Your task to perform on an android device: clear history in the chrome app Image 0: 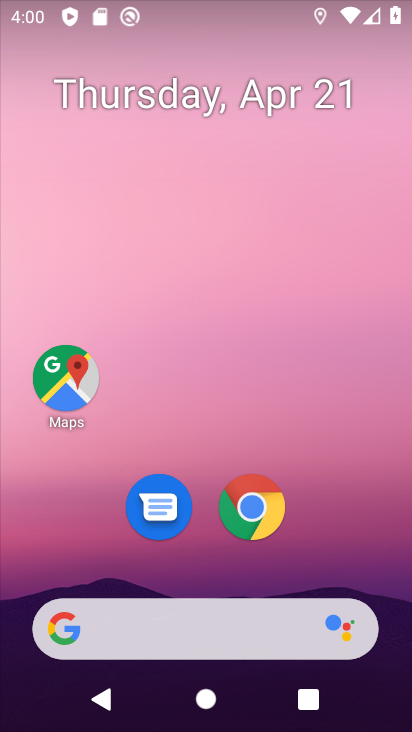
Step 0: drag from (384, 550) to (289, 167)
Your task to perform on an android device: clear history in the chrome app Image 1: 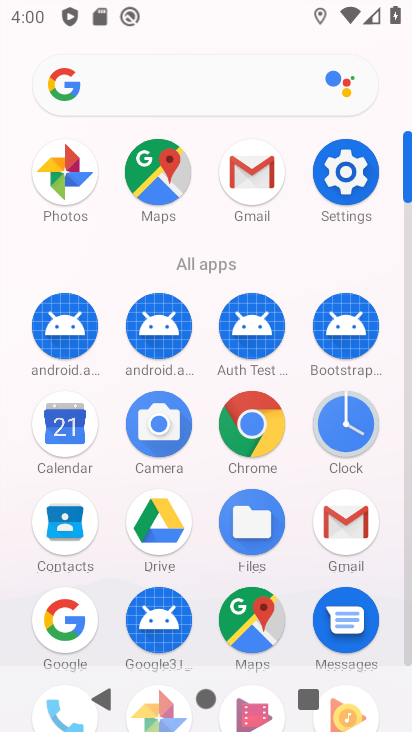
Step 1: click (267, 415)
Your task to perform on an android device: clear history in the chrome app Image 2: 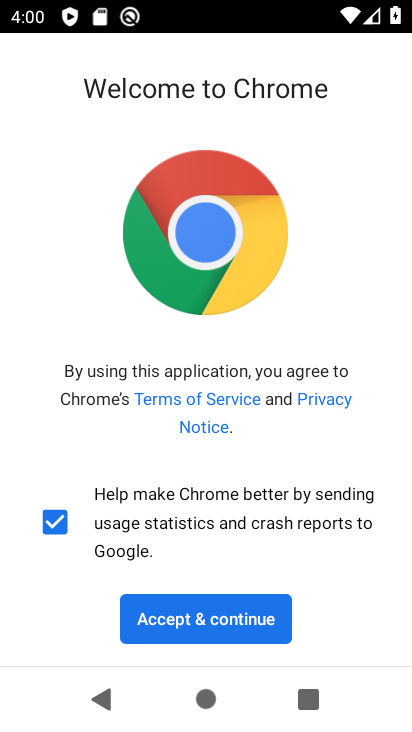
Step 2: click (241, 612)
Your task to perform on an android device: clear history in the chrome app Image 3: 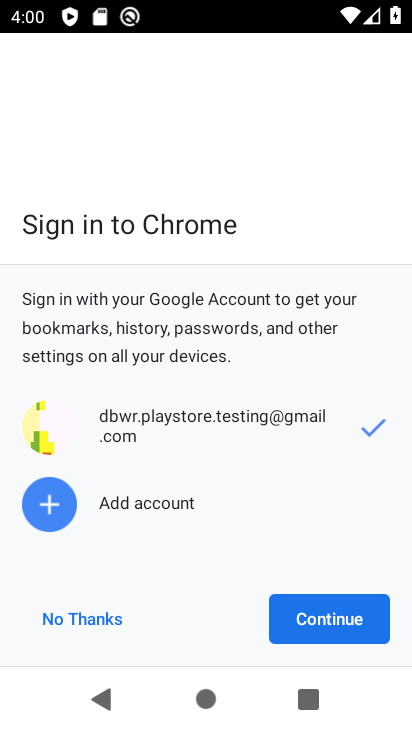
Step 3: click (354, 613)
Your task to perform on an android device: clear history in the chrome app Image 4: 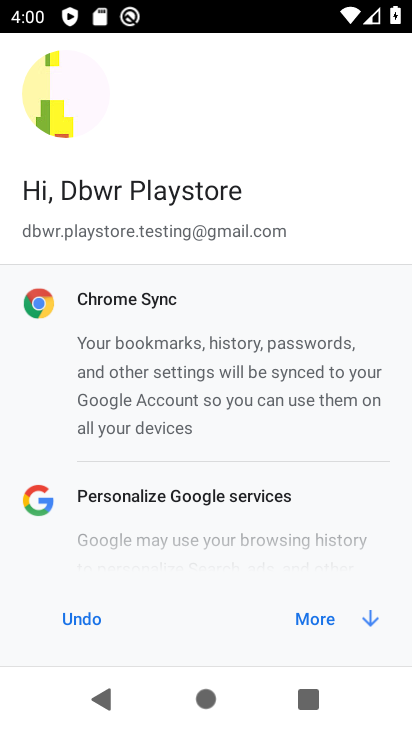
Step 4: click (354, 613)
Your task to perform on an android device: clear history in the chrome app Image 5: 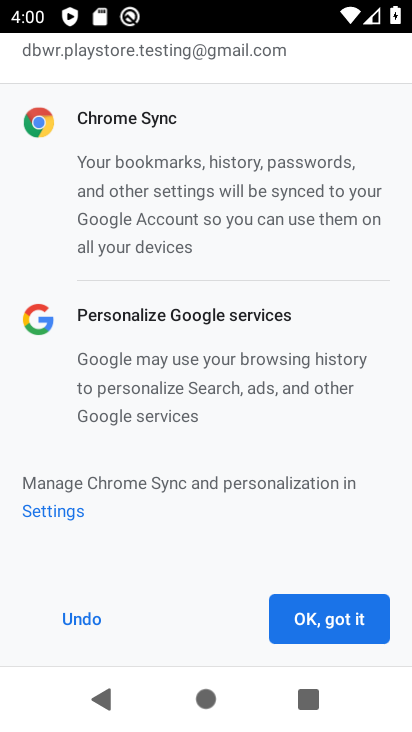
Step 5: click (354, 613)
Your task to perform on an android device: clear history in the chrome app Image 6: 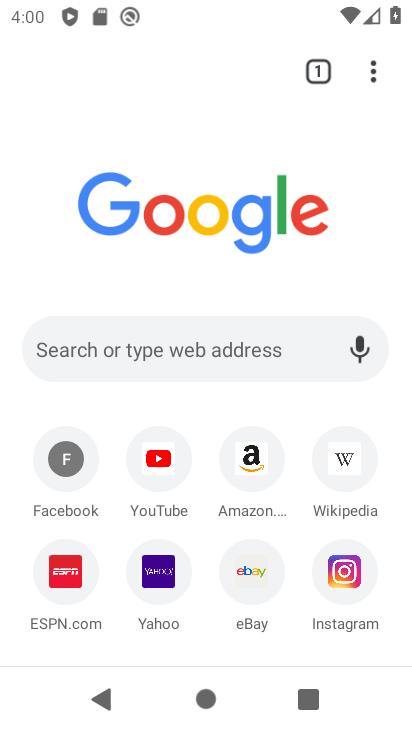
Step 6: task complete